Your task to perform on an android device: Open wifi settings Image 0: 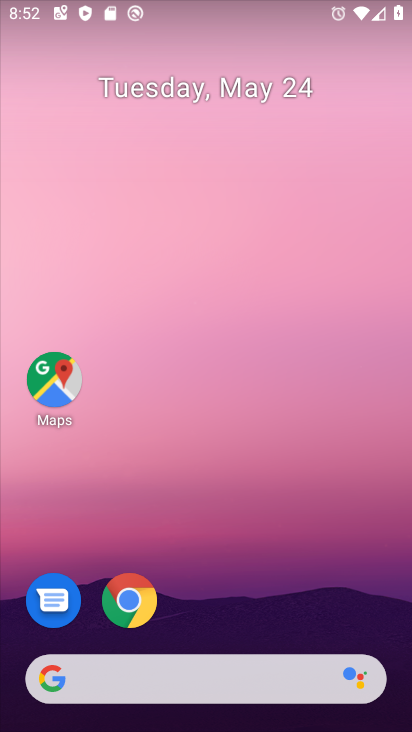
Step 0: drag from (209, 724) to (191, 0)
Your task to perform on an android device: Open wifi settings Image 1: 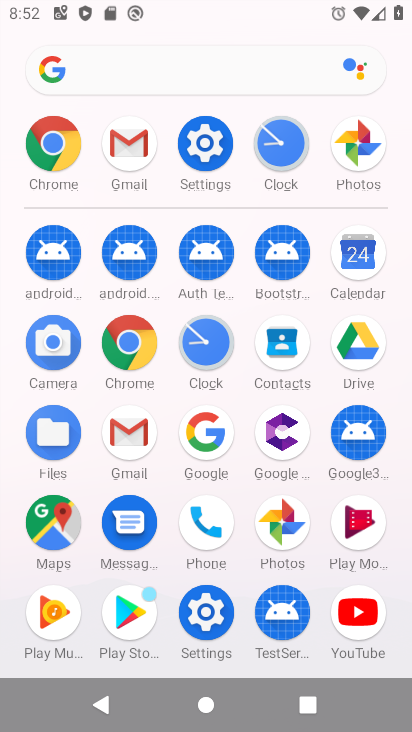
Step 1: click (189, 146)
Your task to perform on an android device: Open wifi settings Image 2: 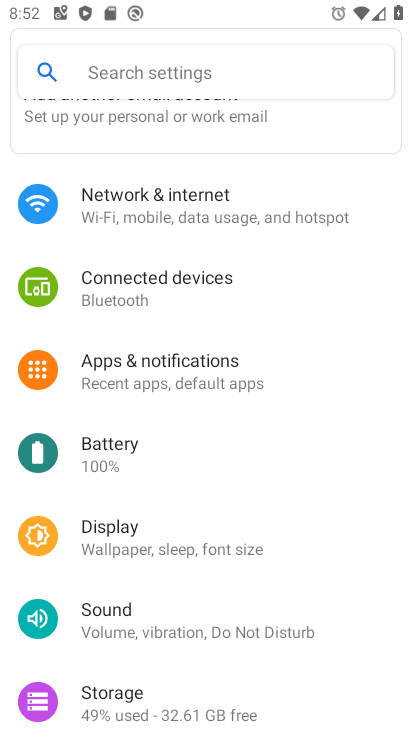
Step 2: drag from (190, 140) to (197, 458)
Your task to perform on an android device: Open wifi settings Image 3: 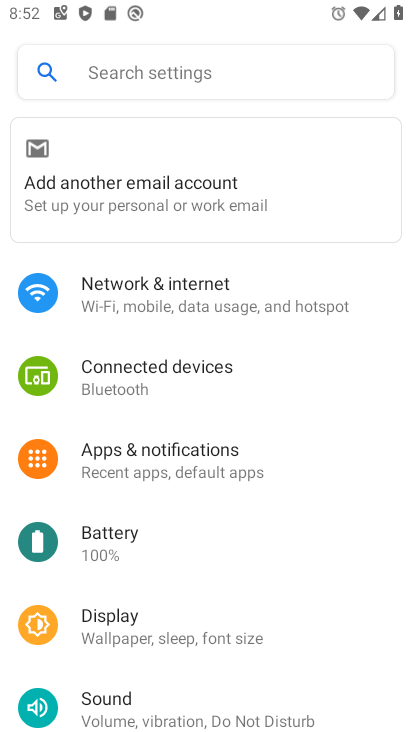
Step 3: click (153, 293)
Your task to perform on an android device: Open wifi settings Image 4: 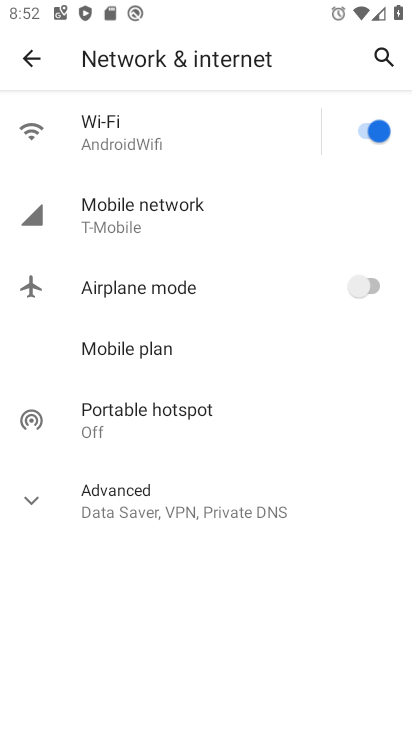
Step 4: click (102, 125)
Your task to perform on an android device: Open wifi settings Image 5: 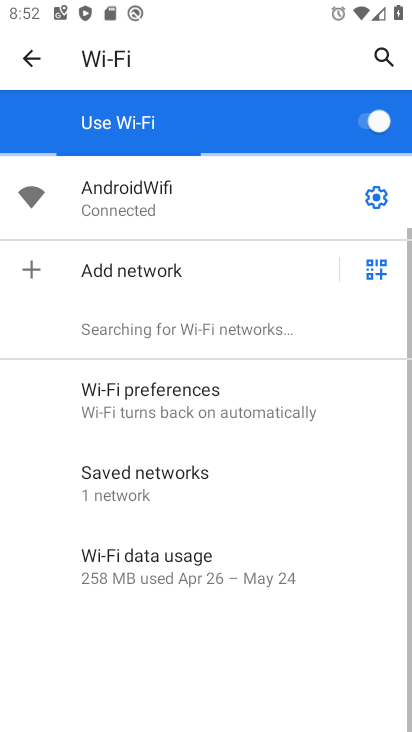
Step 5: task complete